Your task to perform on an android device: turn pop-ups on in chrome Image 0: 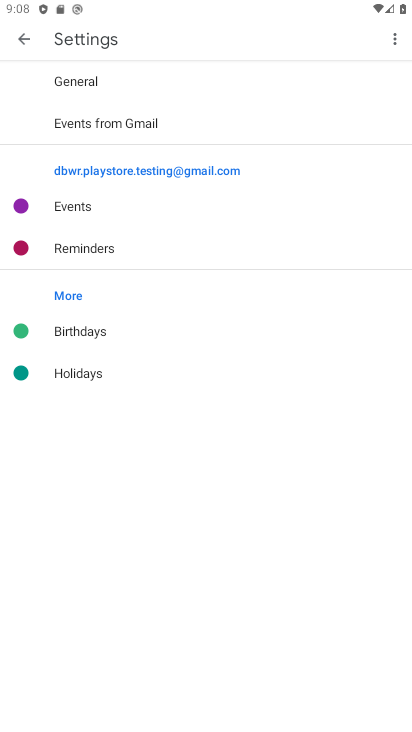
Step 0: drag from (283, 558) to (266, 420)
Your task to perform on an android device: turn pop-ups on in chrome Image 1: 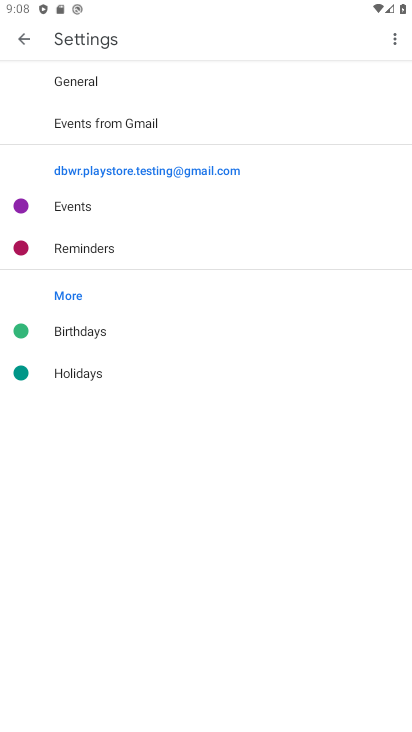
Step 1: press home button
Your task to perform on an android device: turn pop-ups on in chrome Image 2: 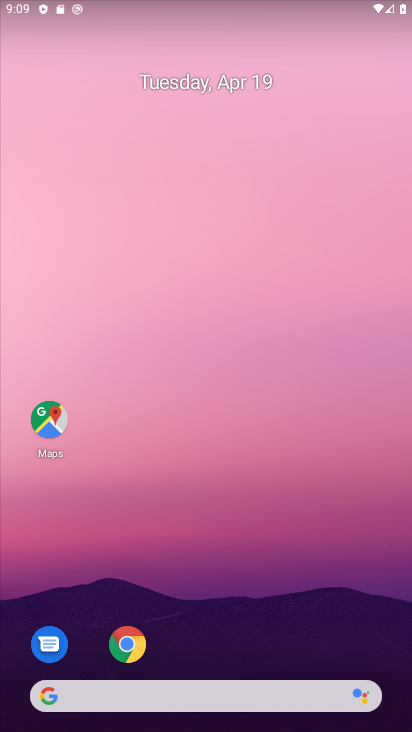
Step 2: drag from (289, 570) to (212, 38)
Your task to perform on an android device: turn pop-ups on in chrome Image 3: 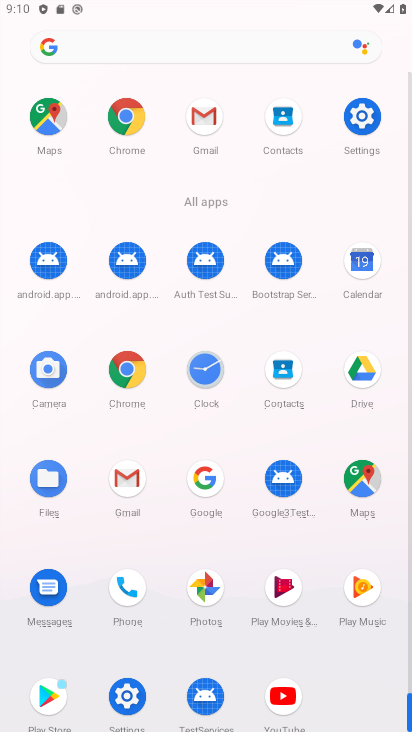
Step 3: click (123, 110)
Your task to perform on an android device: turn pop-ups on in chrome Image 4: 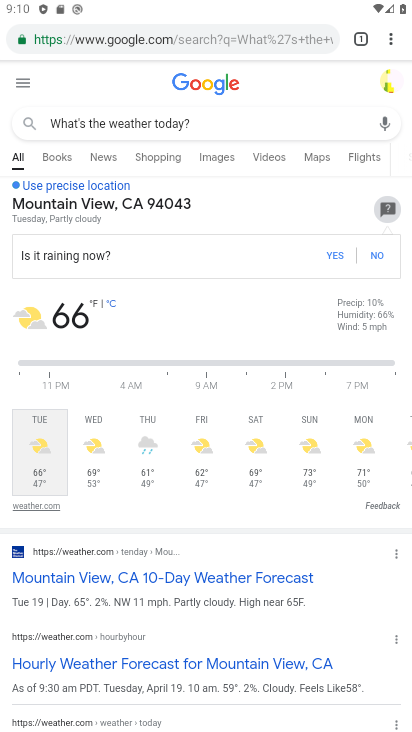
Step 4: drag from (388, 40) to (267, 434)
Your task to perform on an android device: turn pop-ups on in chrome Image 5: 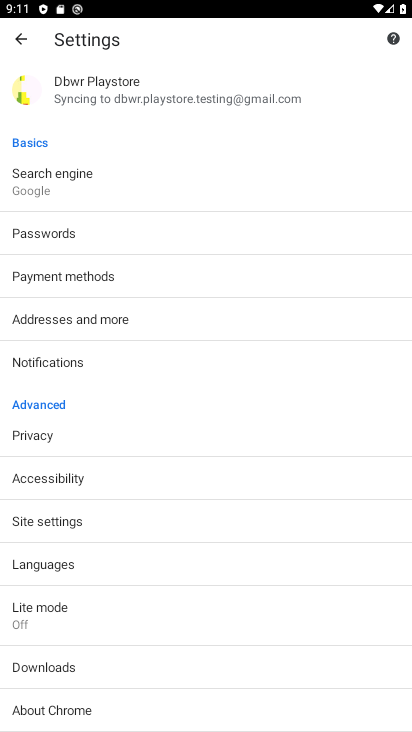
Step 5: click (133, 515)
Your task to perform on an android device: turn pop-ups on in chrome Image 6: 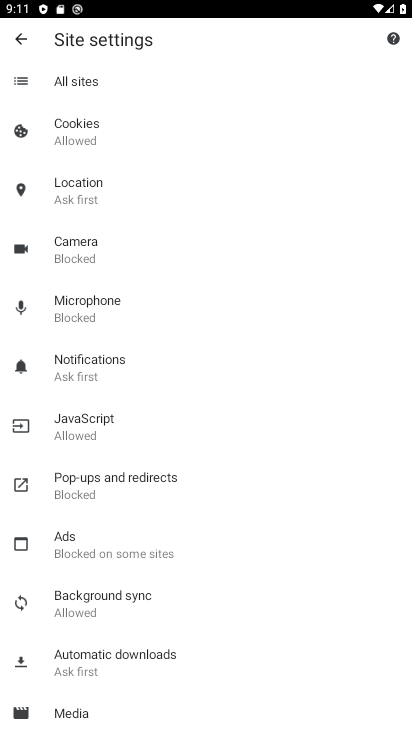
Step 6: click (165, 488)
Your task to perform on an android device: turn pop-ups on in chrome Image 7: 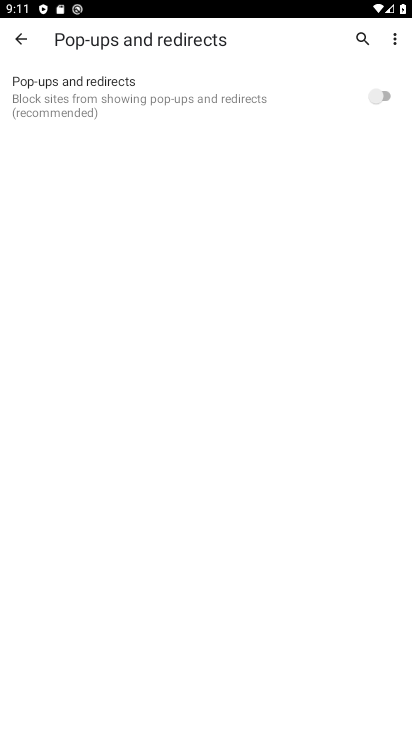
Step 7: click (284, 108)
Your task to perform on an android device: turn pop-ups on in chrome Image 8: 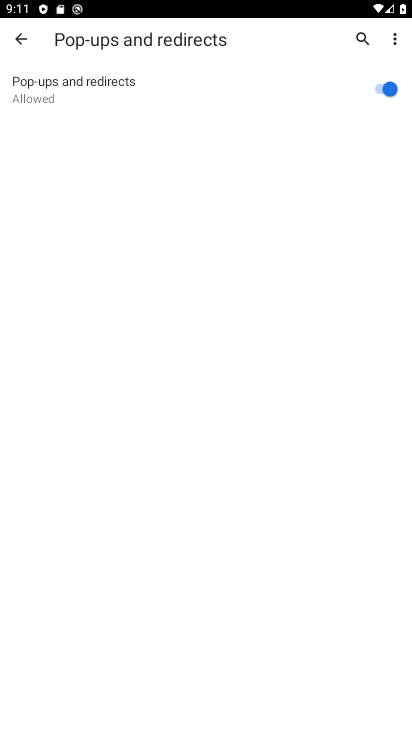
Step 8: task complete